Your task to perform on an android device: Search for the new Nike Air Jordan 33 on Nike.com Image 0: 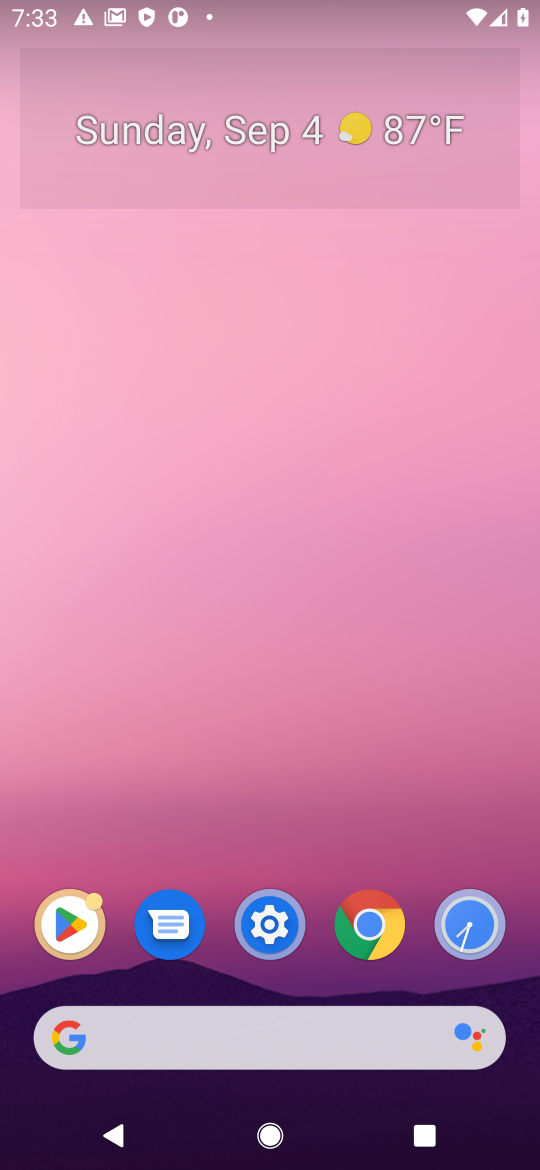
Step 0: press home button
Your task to perform on an android device: Search for the new Nike Air Jordan 33 on Nike.com Image 1: 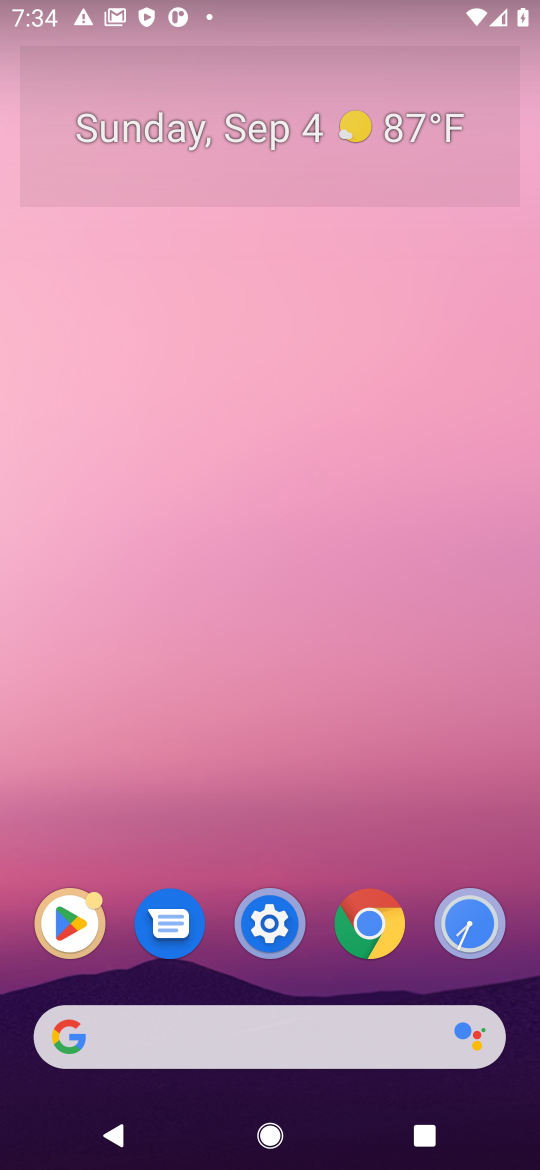
Step 1: click (386, 1034)
Your task to perform on an android device: Search for the new Nike Air Jordan 33 on Nike.com Image 2: 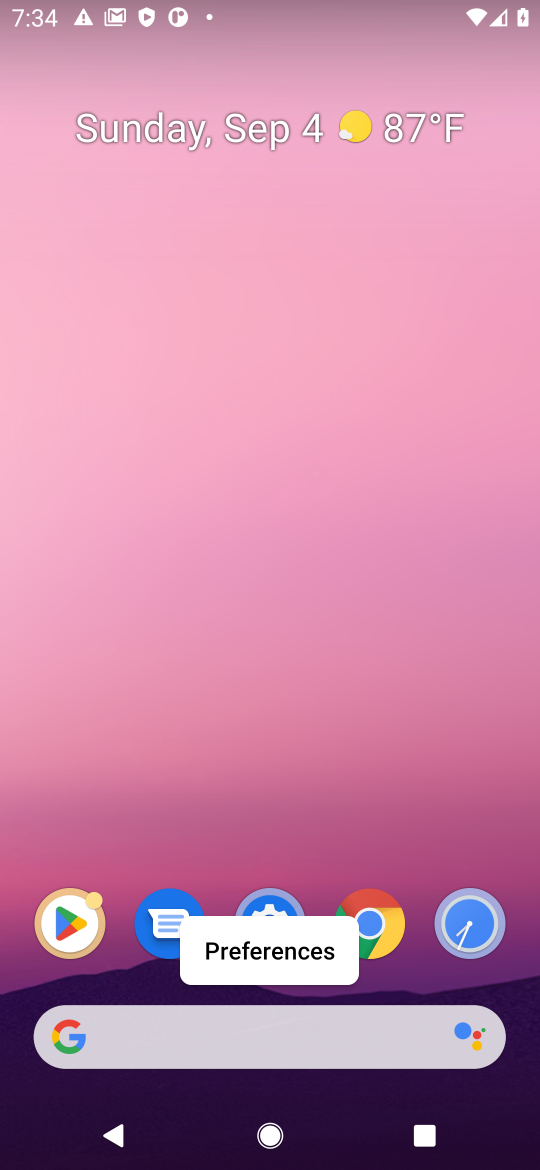
Step 2: click (386, 1034)
Your task to perform on an android device: Search for the new Nike Air Jordan 33 on Nike.com Image 3: 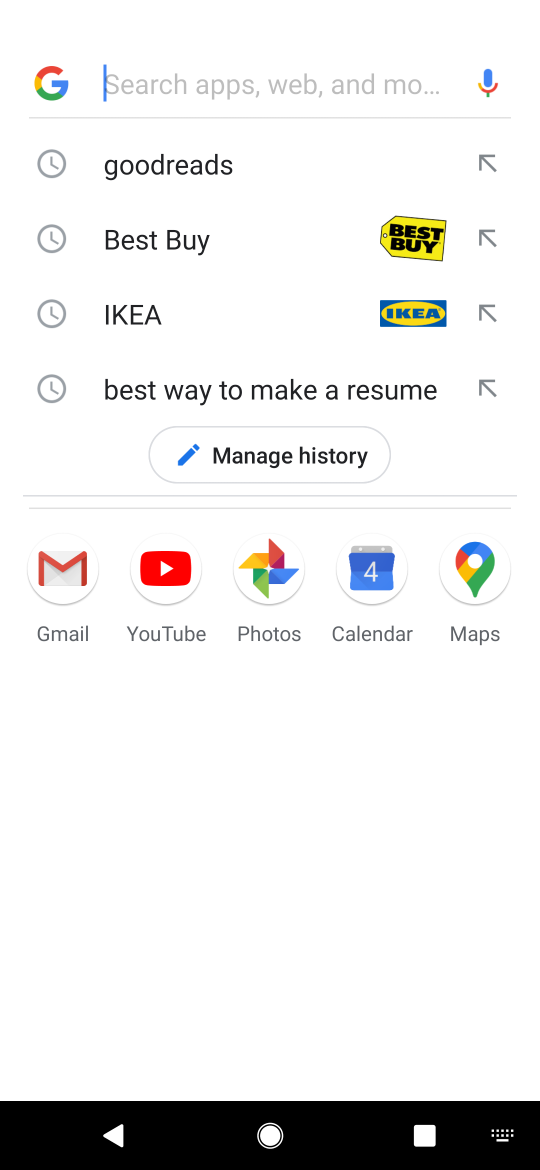
Step 3: press enter
Your task to perform on an android device: Search for the new Nike Air Jordan 33 on Nike.com Image 4: 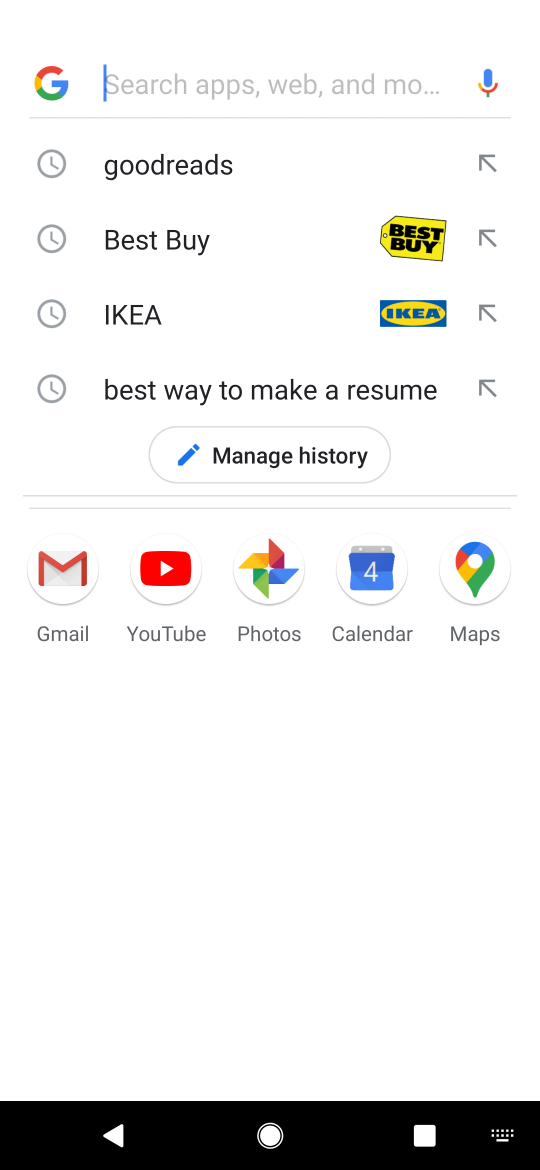
Step 4: type "nike.com"
Your task to perform on an android device: Search for the new Nike Air Jordan 33 on Nike.com Image 5: 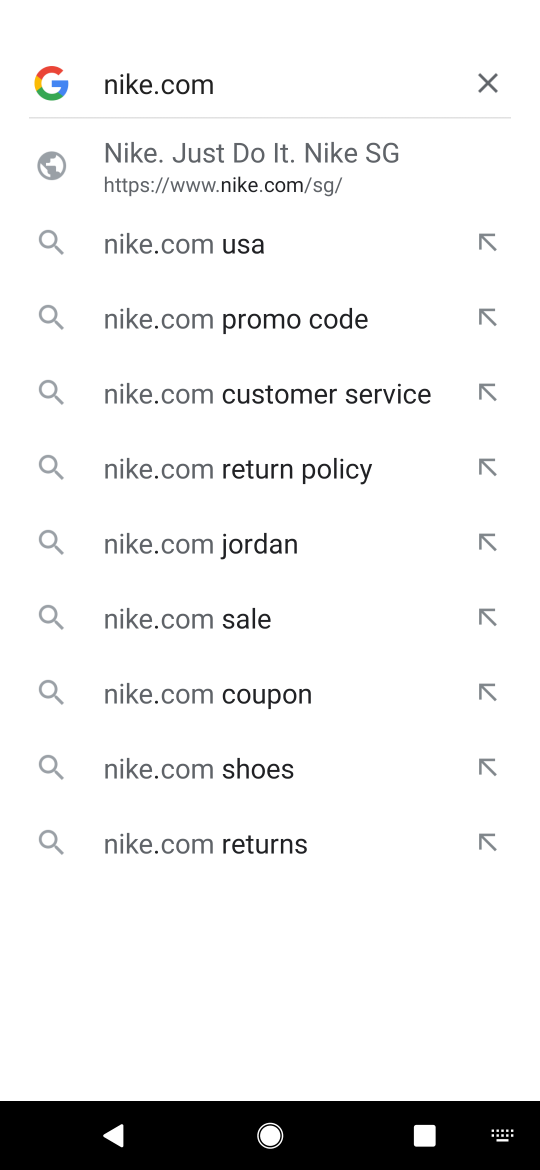
Step 5: click (278, 157)
Your task to perform on an android device: Search for the new Nike Air Jordan 33 on Nike.com Image 6: 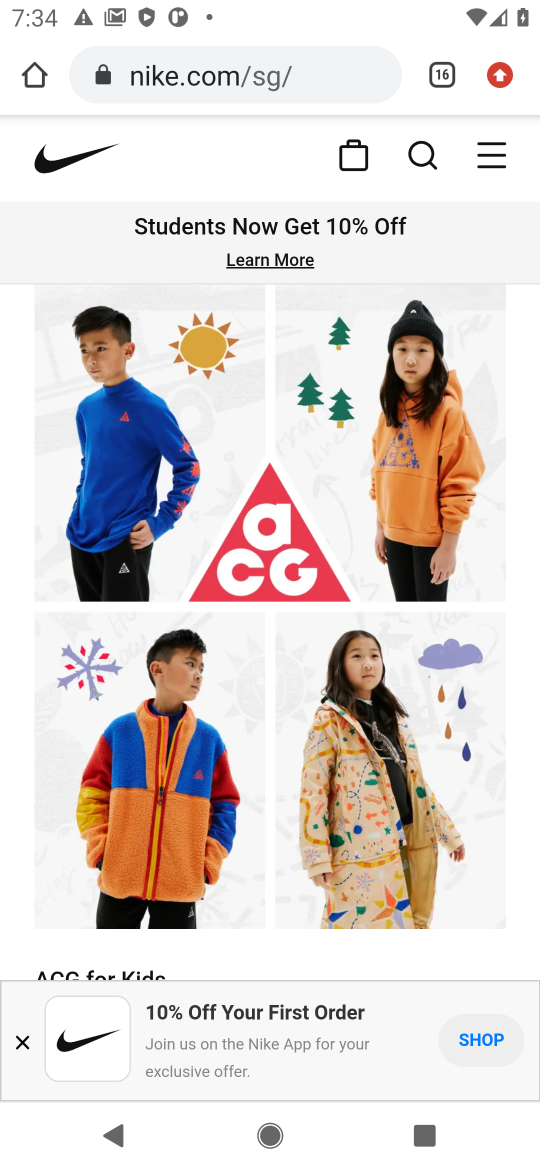
Step 6: click (426, 147)
Your task to perform on an android device: Search for the new Nike Air Jordan 33 on Nike.com Image 7: 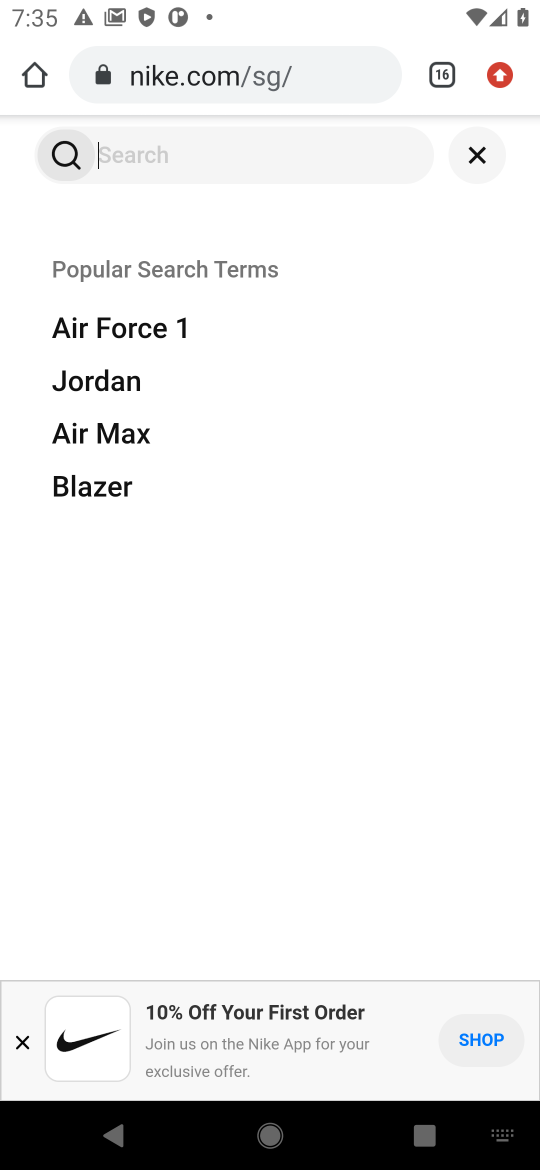
Step 7: press enter
Your task to perform on an android device: Search for the new Nike Air Jordan 33 on Nike.com Image 8: 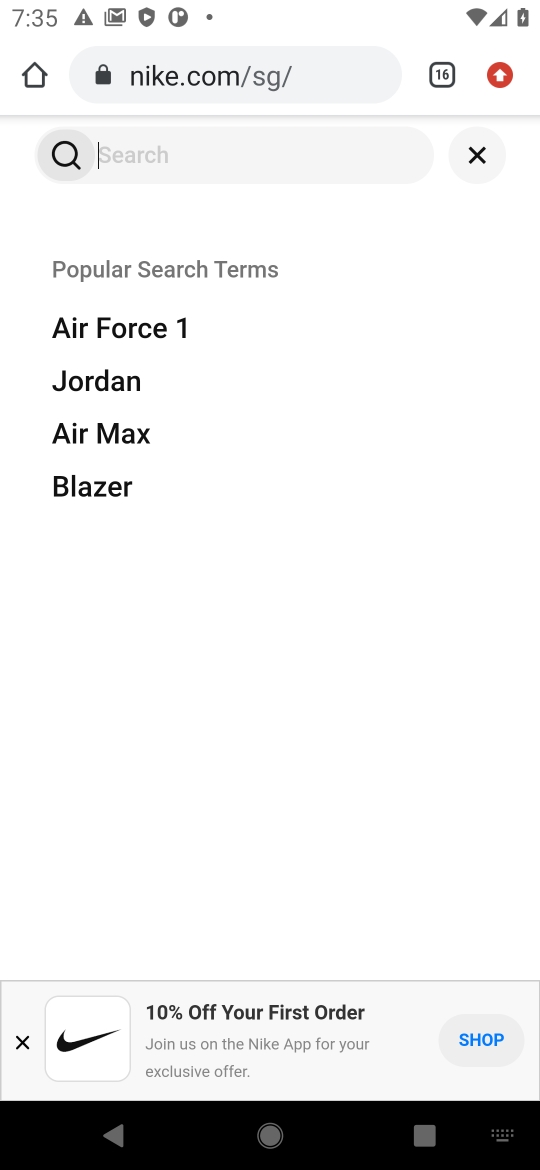
Step 8: type "Nike Air Jordan 33 "
Your task to perform on an android device: Search for the new Nike Air Jordan 33 on Nike.com Image 9: 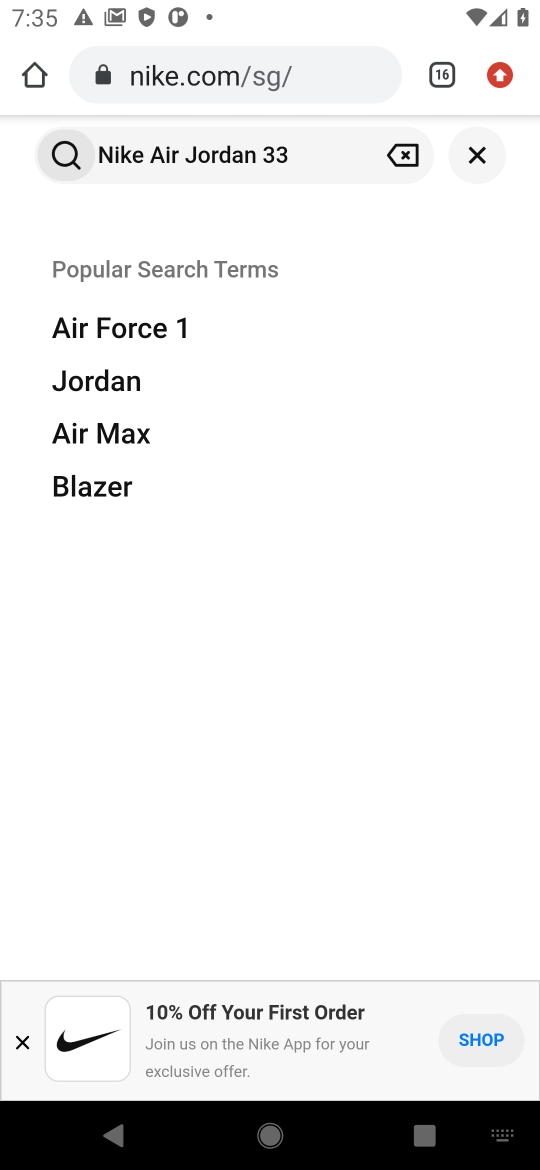
Step 9: click (61, 149)
Your task to perform on an android device: Search for the new Nike Air Jordan 33 on Nike.com Image 10: 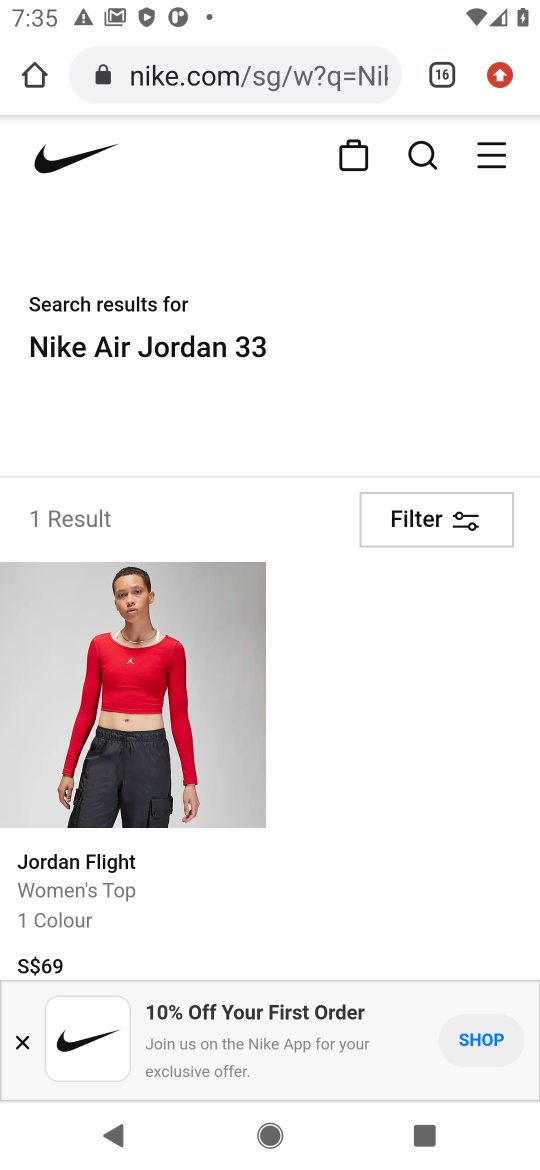
Step 10: task complete